Your task to perform on an android device: Open Google Maps Image 0: 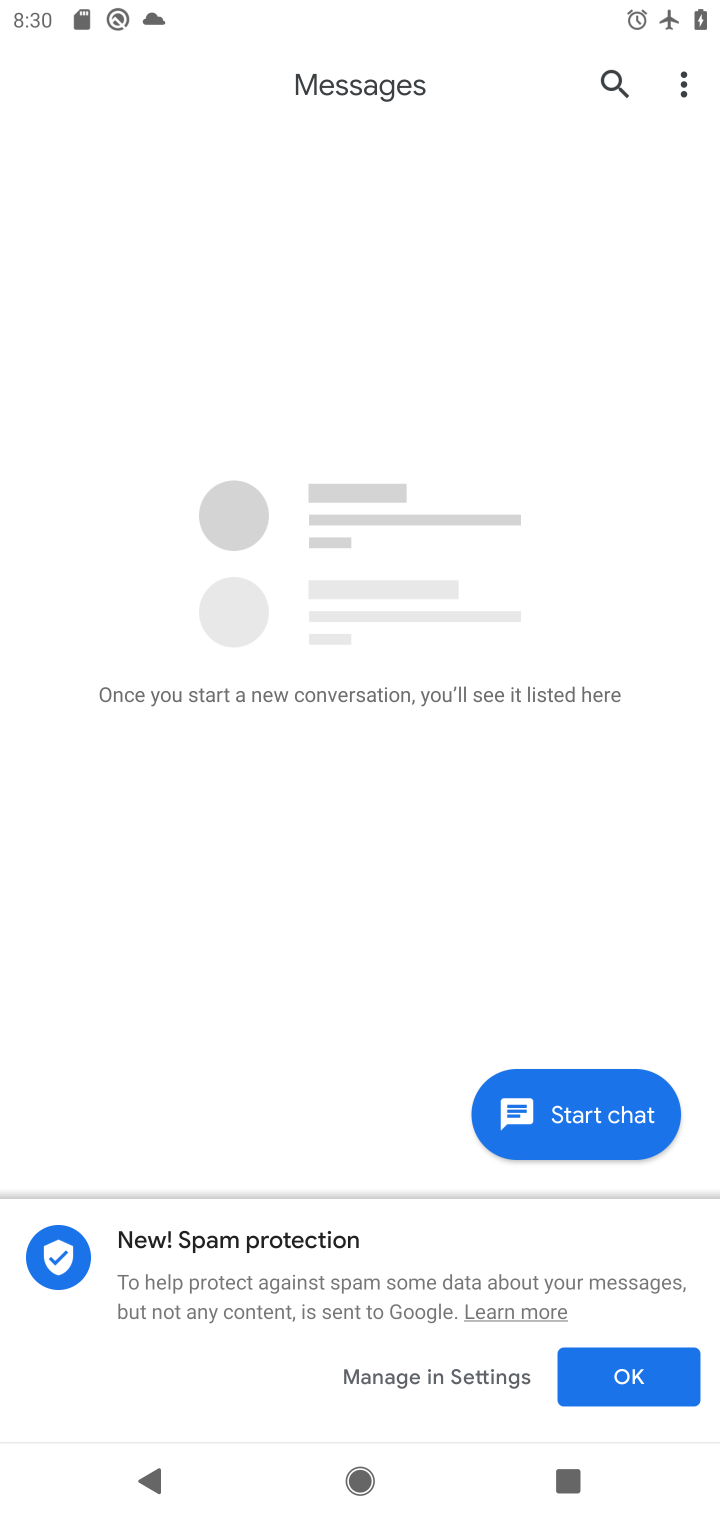
Step 0: press home button
Your task to perform on an android device: Open Google Maps Image 1: 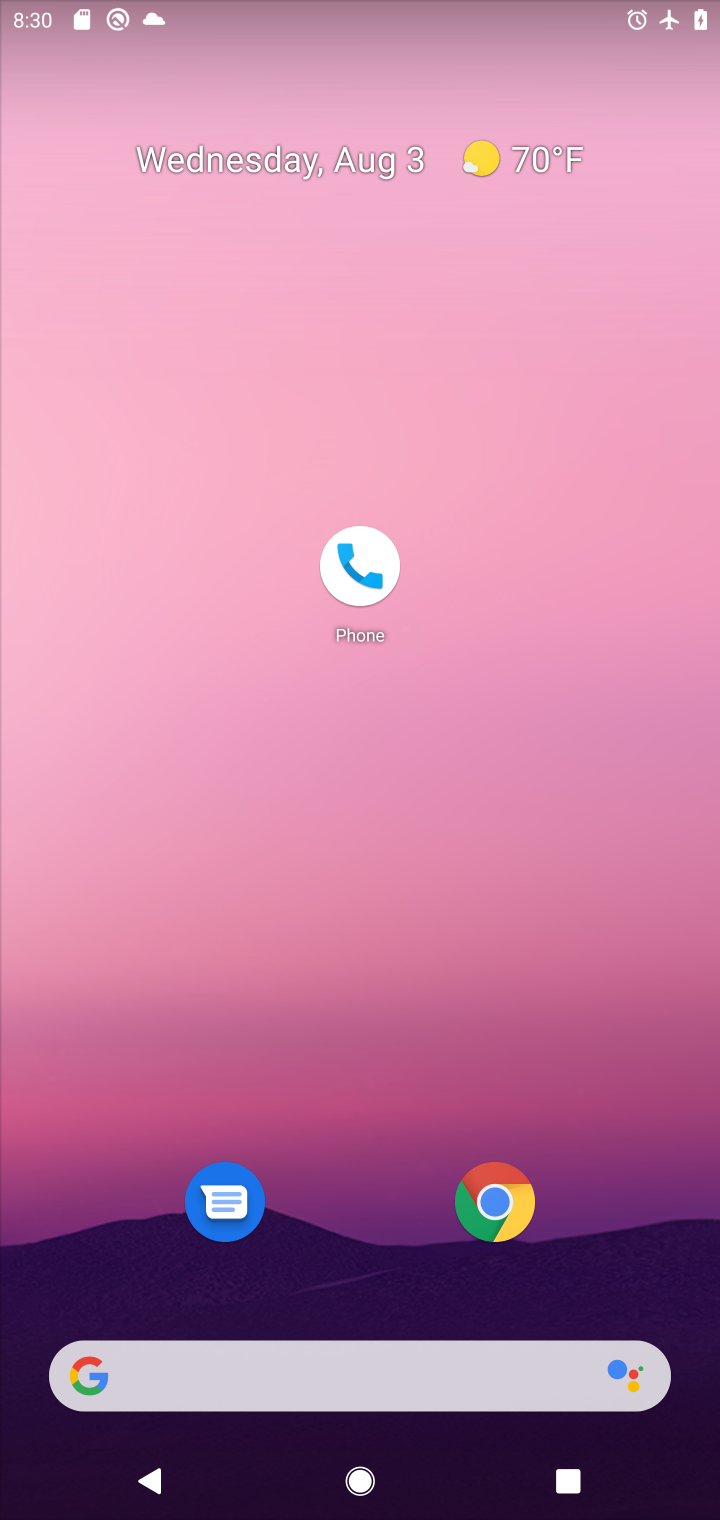
Step 1: drag from (320, 1387) to (443, 238)
Your task to perform on an android device: Open Google Maps Image 2: 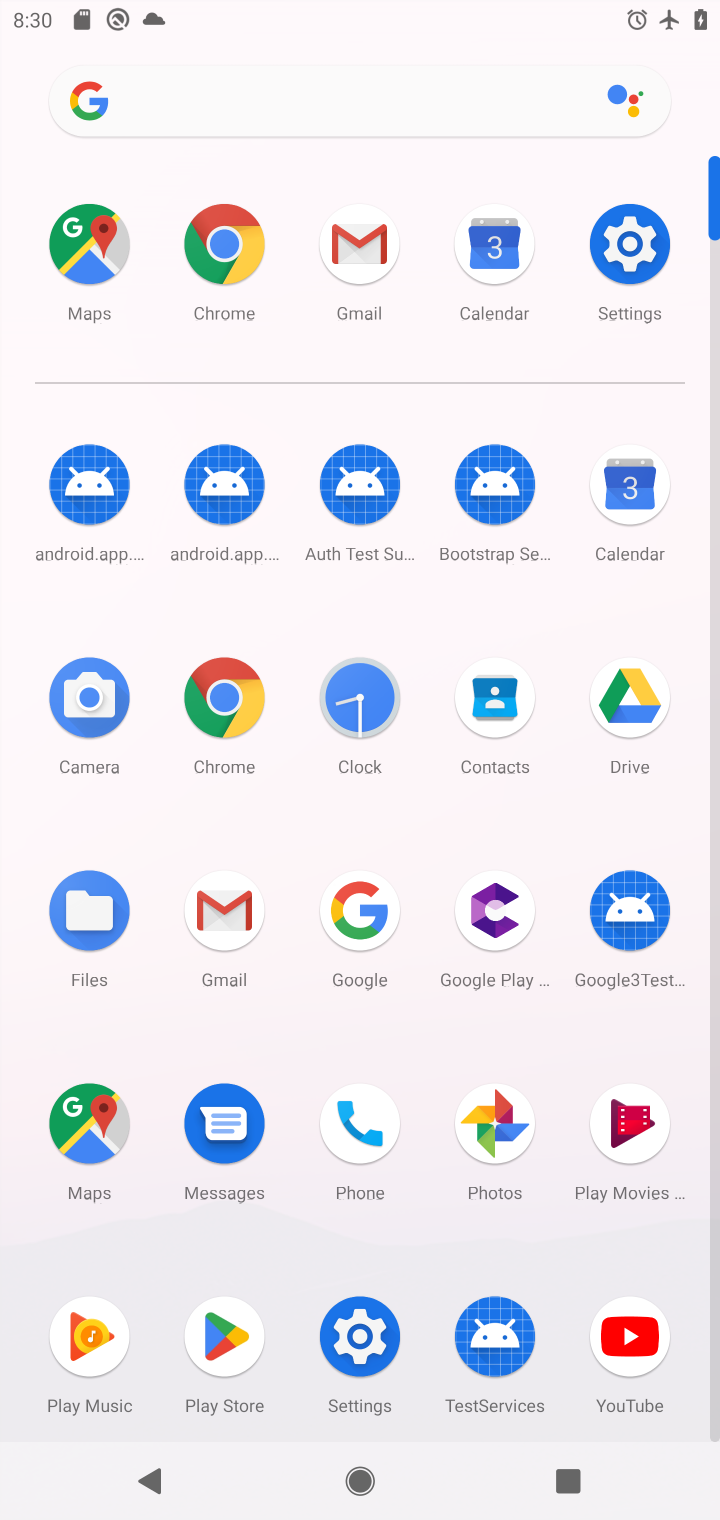
Step 2: click (88, 246)
Your task to perform on an android device: Open Google Maps Image 3: 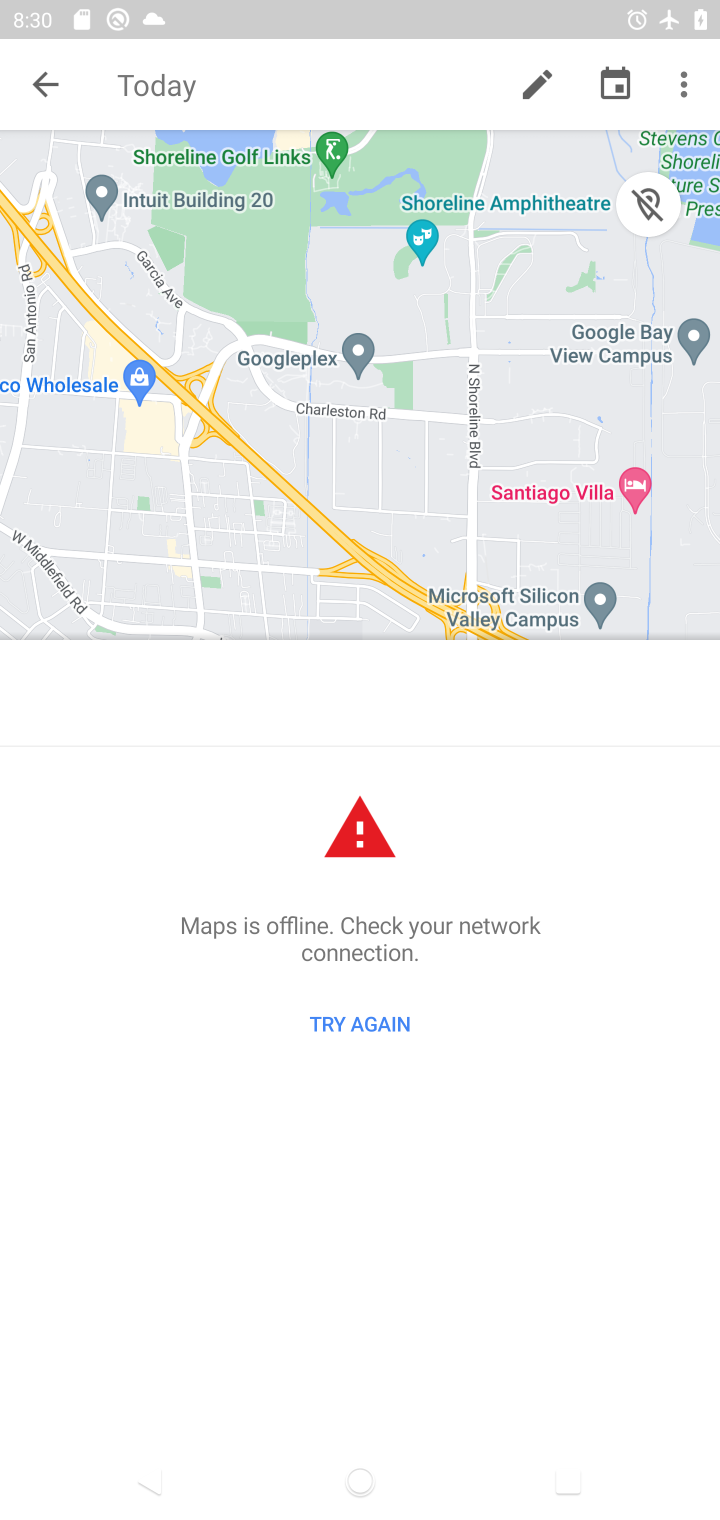
Step 3: task complete